Your task to perform on an android device: Toggle the flashlight Image 0: 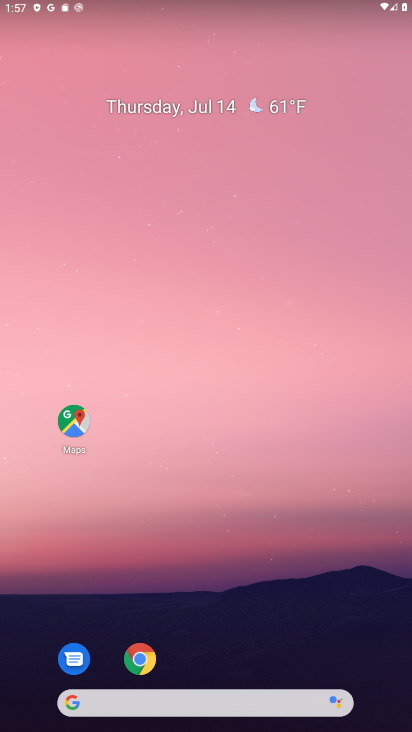
Step 0: drag from (219, 684) to (173, 45)
Your task to perform on an android device: Toggle the flashlight Image 1: 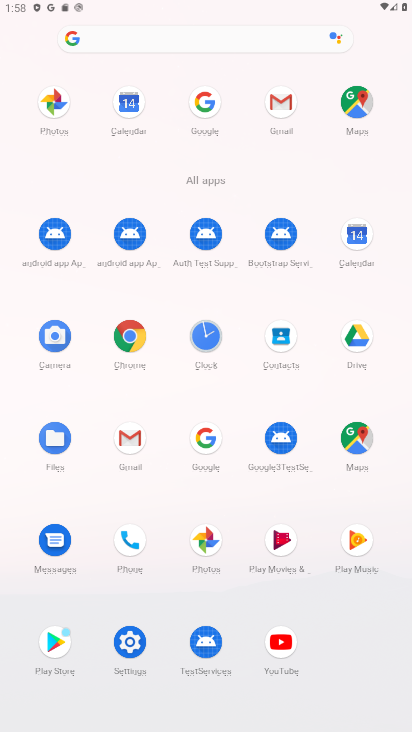
Step 1: click (107, 644)
Your task to perform on an android device: Toggle the flashlight Image 2: 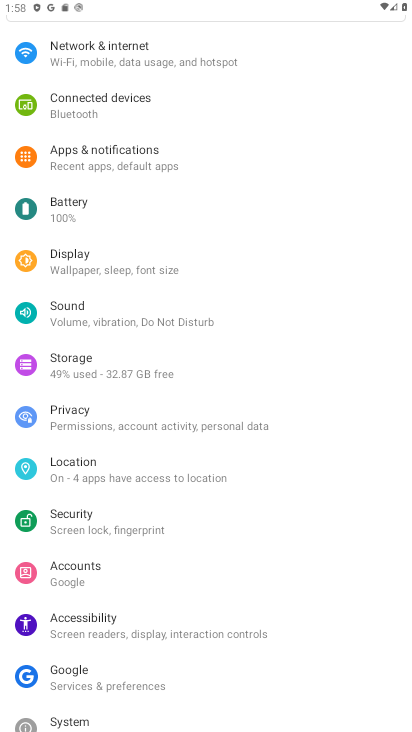
Step 2: task complete